Your task to perform on an android device: turn on javascript in the chrome app Image 0: 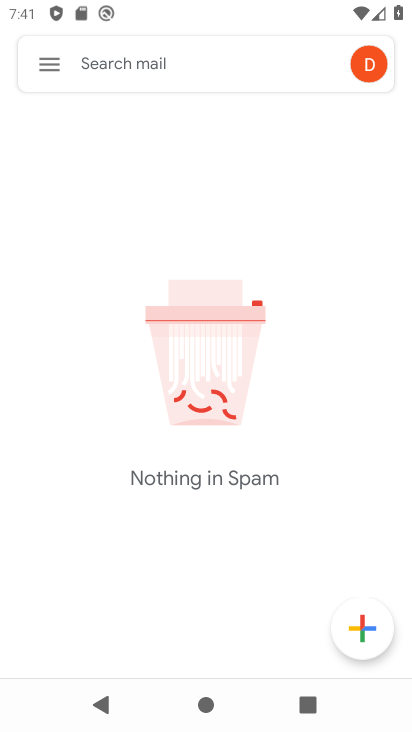
Step 0: press home button
Your task to perform on an android device: turn on javascript in the chrome app Image 1: 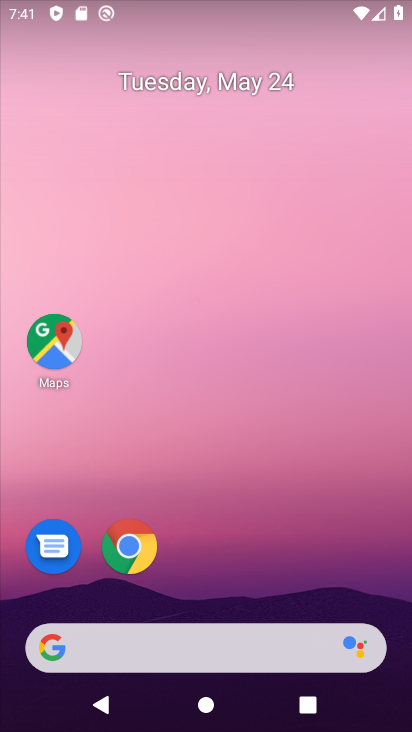
Step 1: click (130, 539)
Your task to perform on an android device: turn on javascript in the chrome app Image 2: 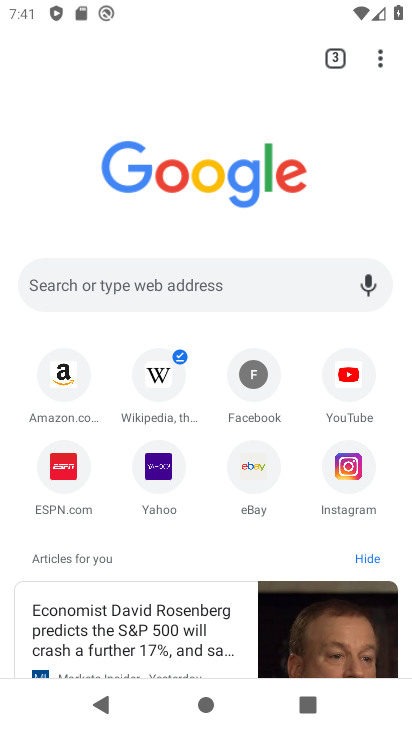
Step 2: click (375, 57)
Your task to perform on an android device: turn on javascript in the chrome app Image 3: 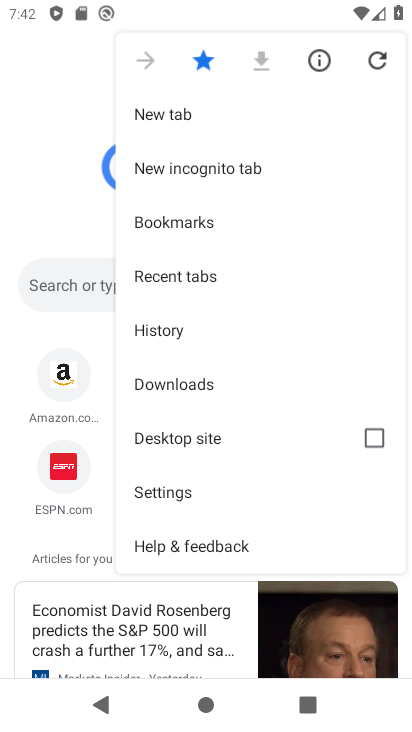
Step 3: click (206, 483)
Your task to perform on an android device: turn on javascript in the chrome app Image 4: 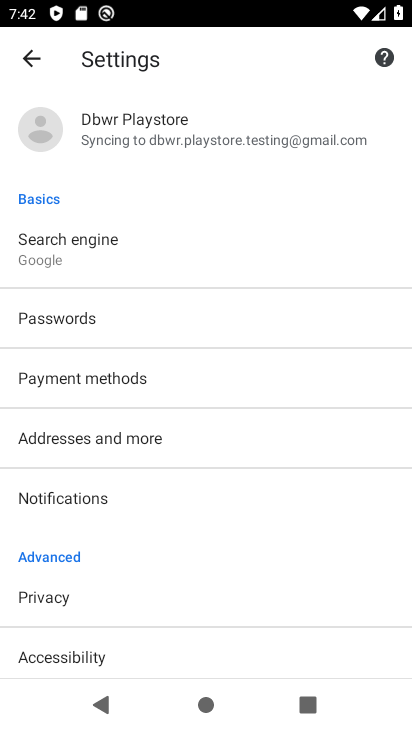
Step 4: drag from (205, 560) to (244, 251)
Your task to perform on an android device: turn on javascript in the chrome app Image 5: 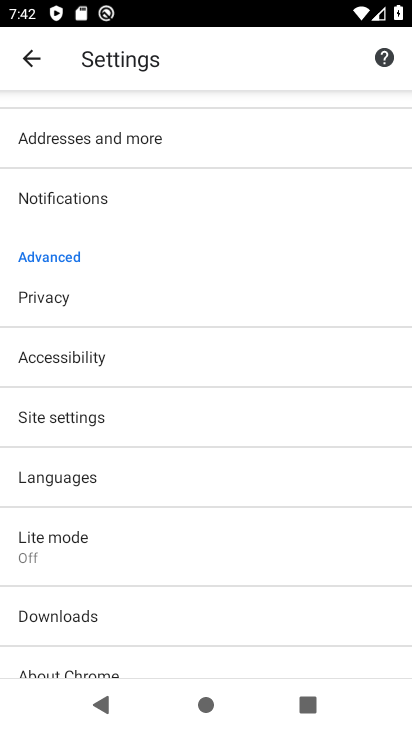
Step 5: click (196, 424)
Your task to perform on an android device: turn on javascript in the chrome app Image 6: 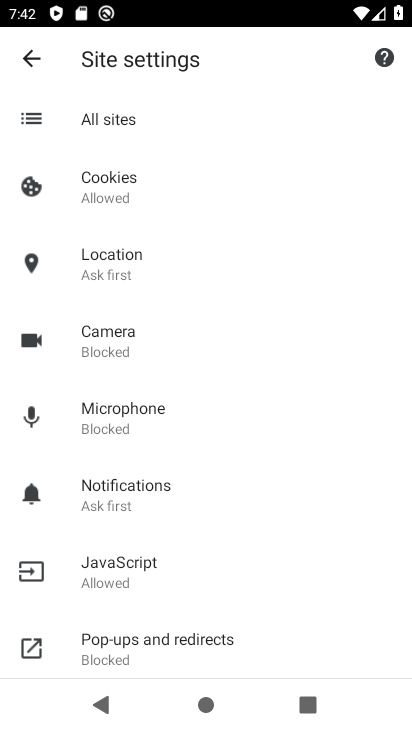
Step 6: click (195, 565)
Your task to perform on an android device: turn on javascript in the chrome app Image 7: 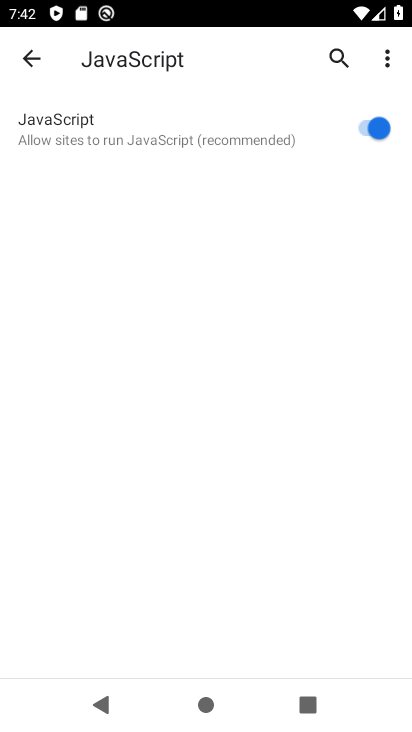
Step 7: task complete